Your task to perform on an android device: create a new album in the google photos Image 0: 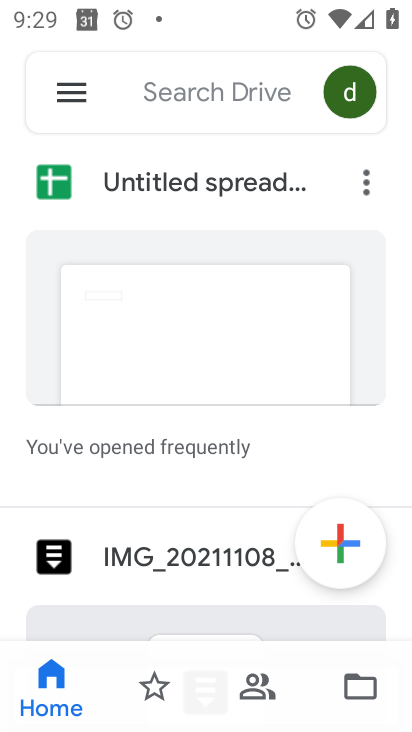
Step 0: press back button
Your task to perform on an android device: create a new album in the google photos Image 1: 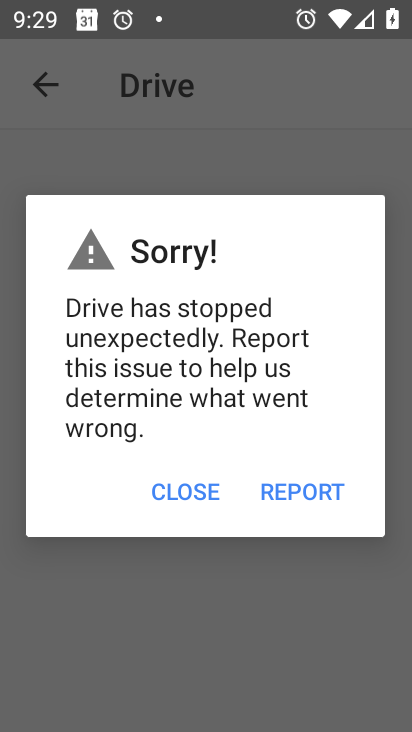
Step 1: press back button
Your task to perform on an android device: create a new album in the google photos Image 2: 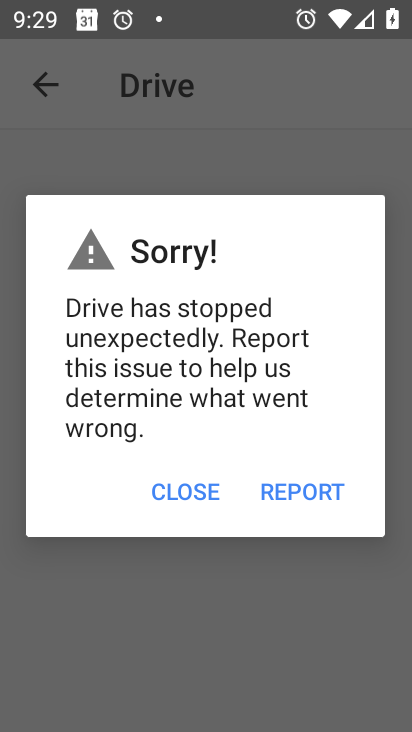
Step 2: press home button
Your task to perform on an android device: create a new album in the google photos Image 3: 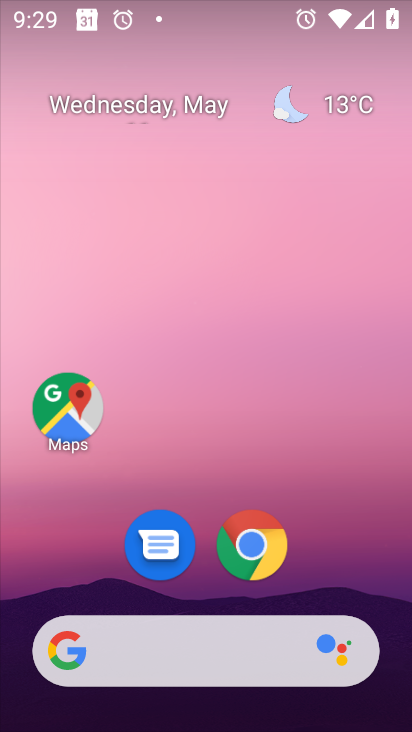
Step 3: drag from (333, 555) to (250, 57)
Your task to perform on an android device: create a new album in the google photos Image 4: 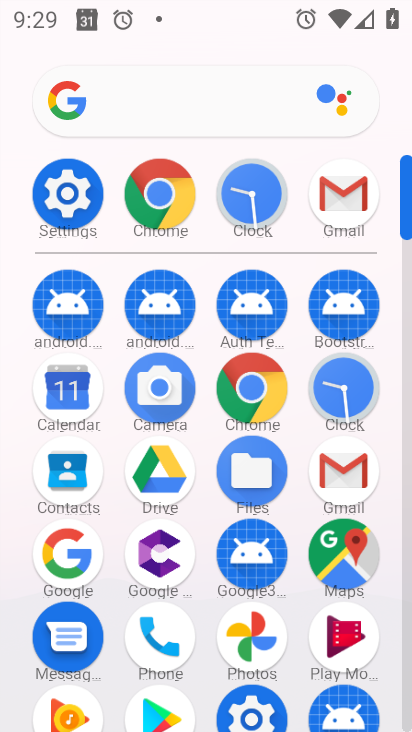
Step 4: drag from (6, 552) to (0, 224)
Your task to perform on an android device: create a new album in the google photos Image 5: 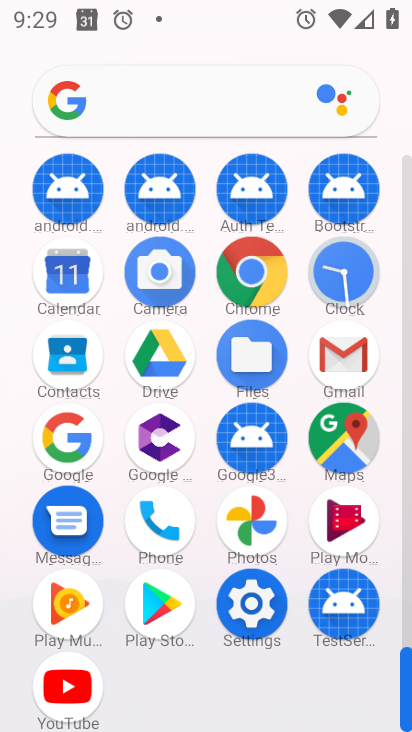
Step 5: click (251, 516)
Your task to perform on an android device: create a new album in the google photos Image 6: 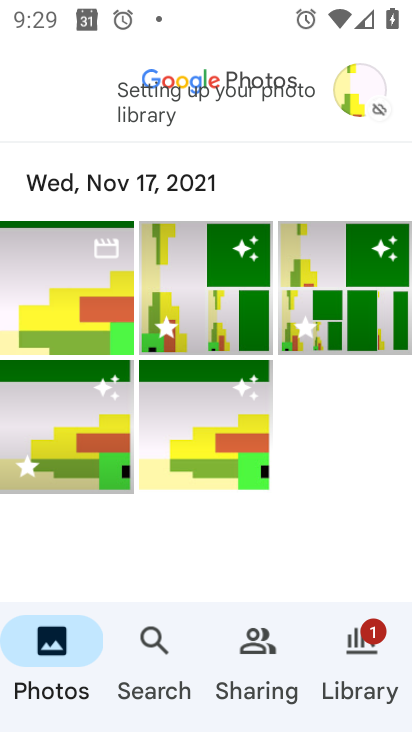
Step 6: click (361, 641)
Your task to perform on an android device: create a new album in the google photos Image 7: 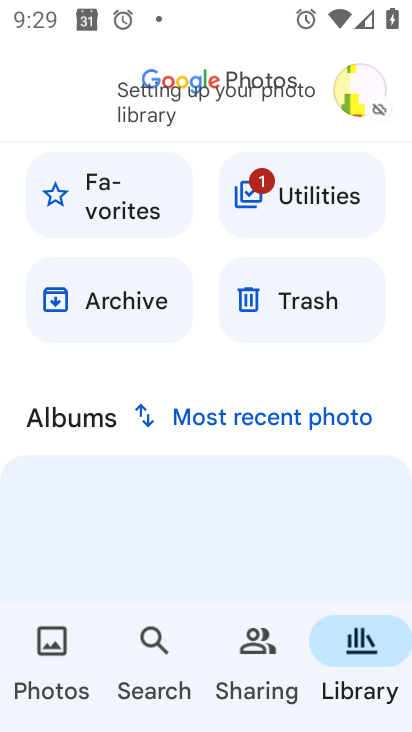
Step 7: click (44, 643)
Your task to perform on an android device: create a new album in the google photos Image 8: 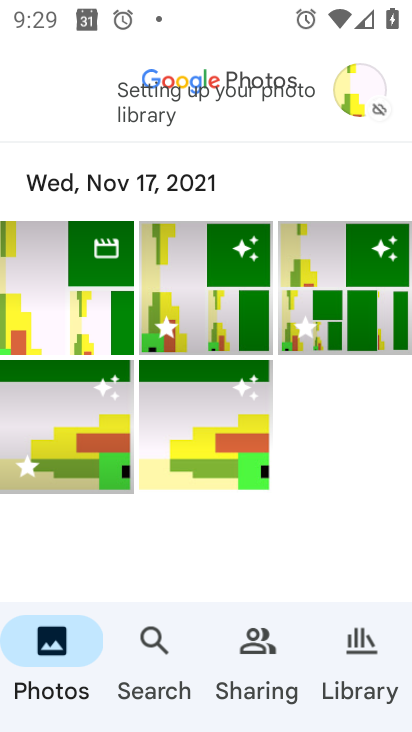
Step 8: click (205, 303)
Your task to perform on an android device: create a new album in the google photos Image 9: 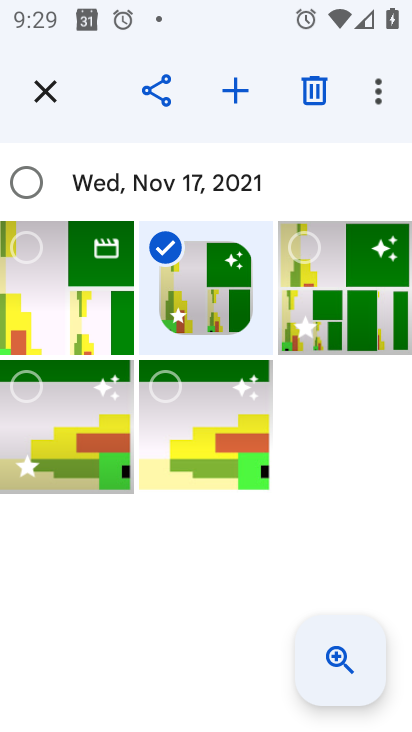
Step 9: click (238, 108)
Your task to perform on an android device: create a new album in the google photos Image 10: 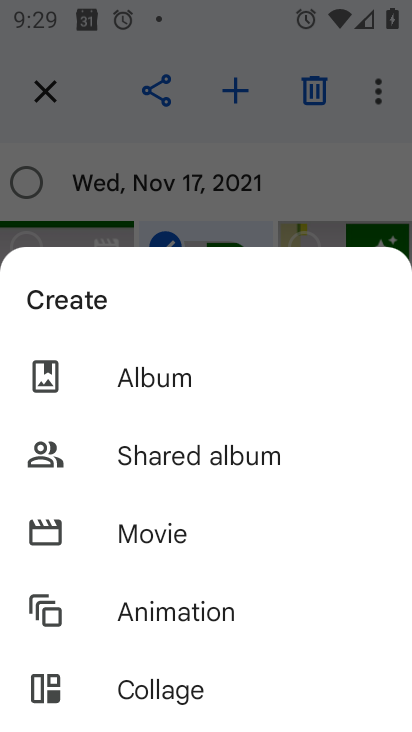
Step 10: click (184, 379)
Your task to perform on an android device: create a new album in the google photos Image 11: 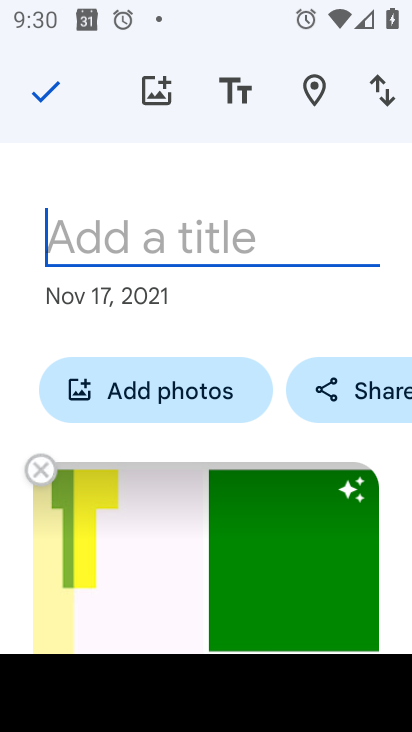
Step 11: type "ZXc"
Your task to perform on an android device: create a new album in the google photos Image 12: 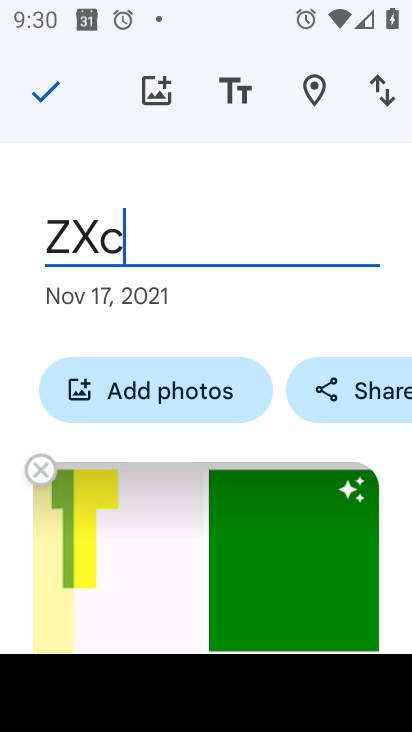
Step 12: type ""
Your task to perform on an android device: create a new album in the google photos Image 13: 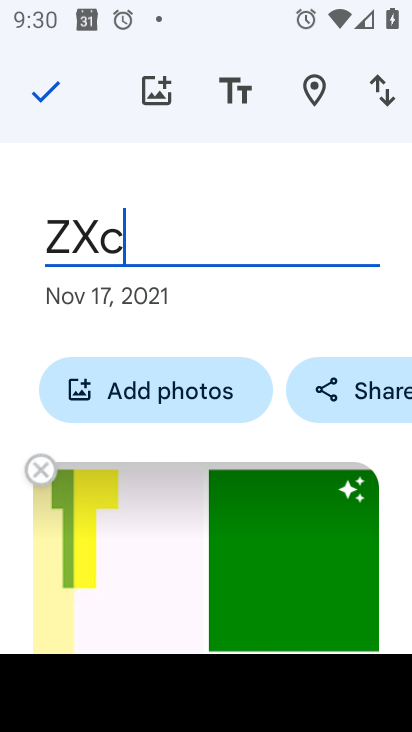
Step 13: click (50, 86)
Your task to perform on an android device: create a new album in the google photos Image 14: 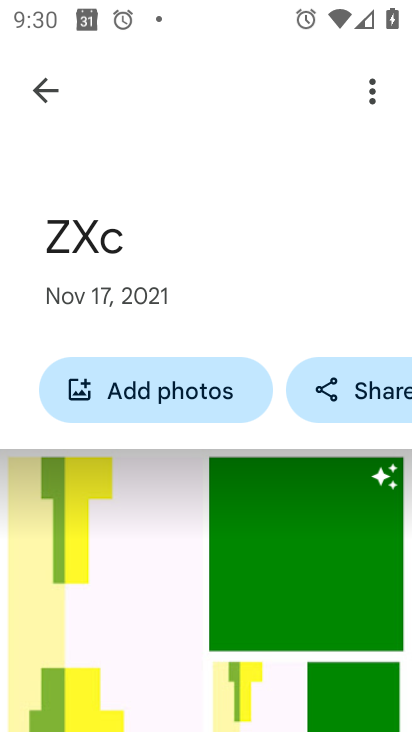
Step 14: task complete